Your task to perform on an android device: Show me the alarms in the clock app Image 0: 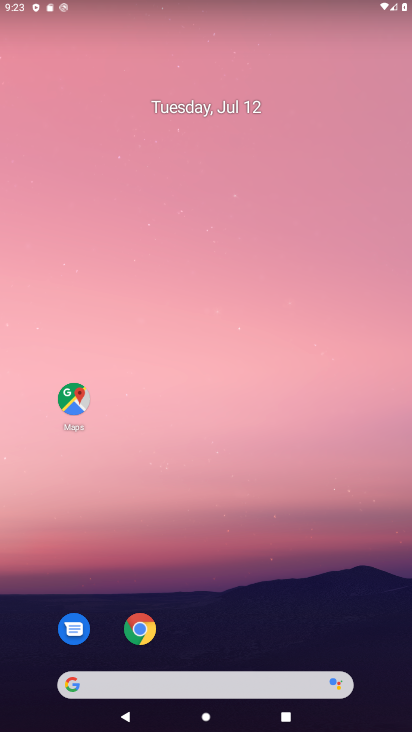
Step 0: drag from (324, 597) to (274, 174)
Your task to perform on an android device: Show me the alarms in the clock app Image 1: 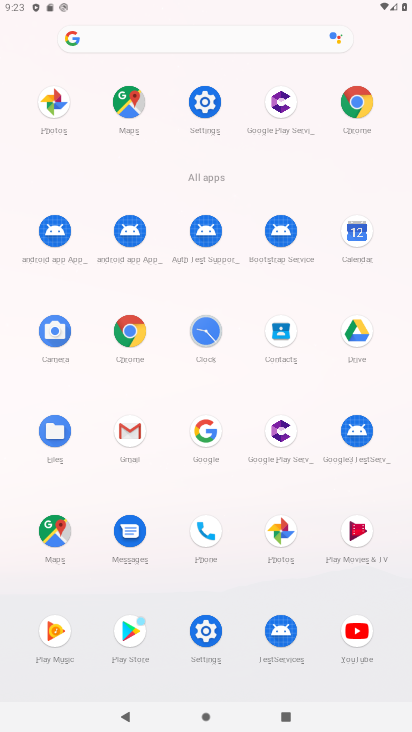
Step 1: click (211, 326)
Your task to perform on an android device: Show me the alarms in the clock app Image 2: 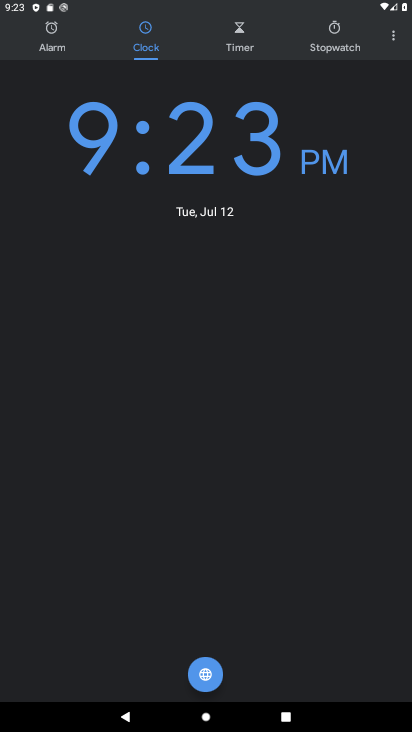
Step 2: click (53, 30)
Your task to perform on an android device: Show me the alarms in the clock app Image 3: 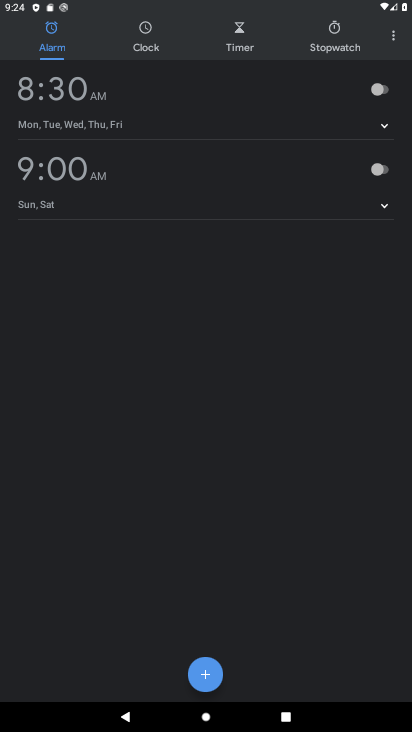
Step 3: task complete